Your task to perform on an android device: Open display settings Image 0: 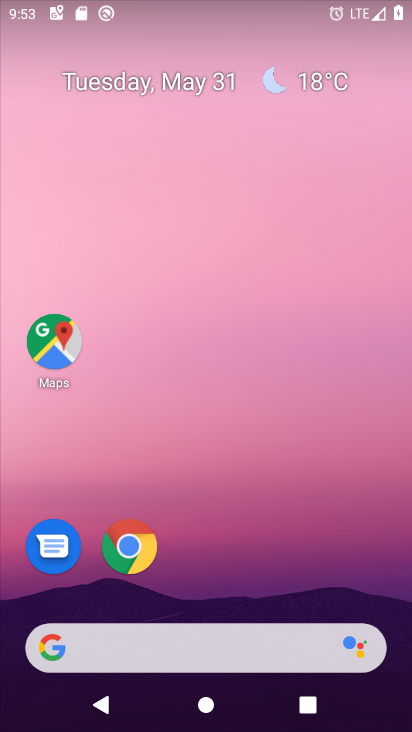
Step 0: drag from (232, 569) to (165, 4)
Your task to perform on an android device: Open display settings Image 1: 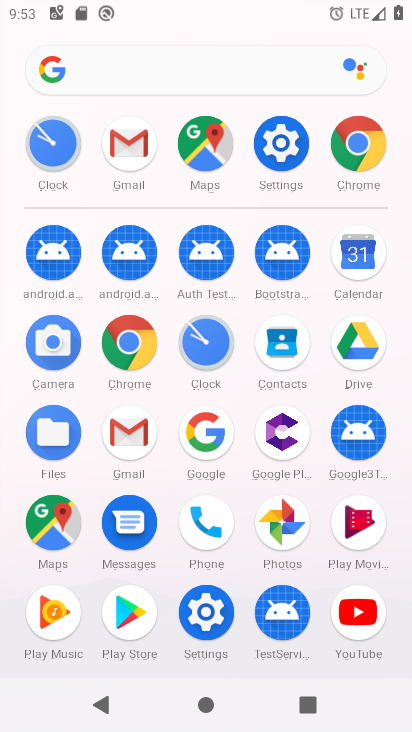
Step 1: click (284, 158)
Your task to perform on an android device: Open display settings Image 2: 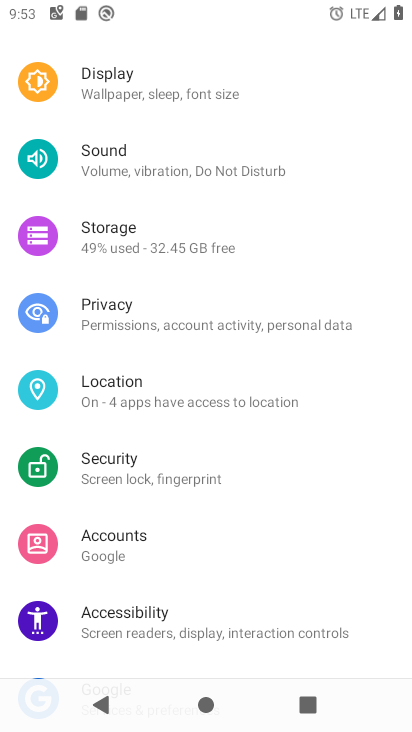
Step 2: click (162, 89)
Your task to perform on an android device: Open display settings Image 3: 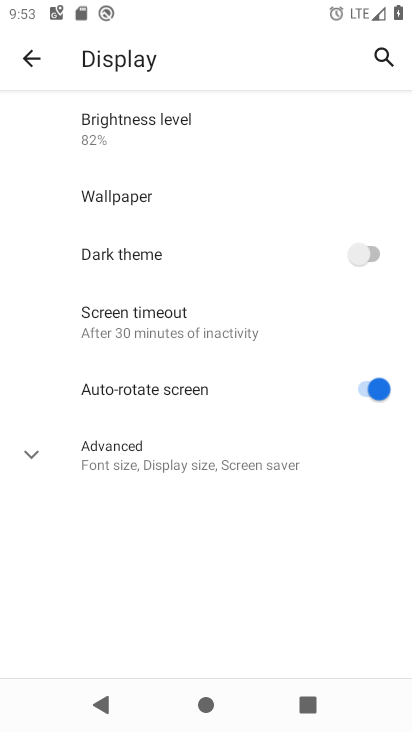
Step 3: task complete